Your task to perform on an android device: Go to Yahoo.com Image 0: 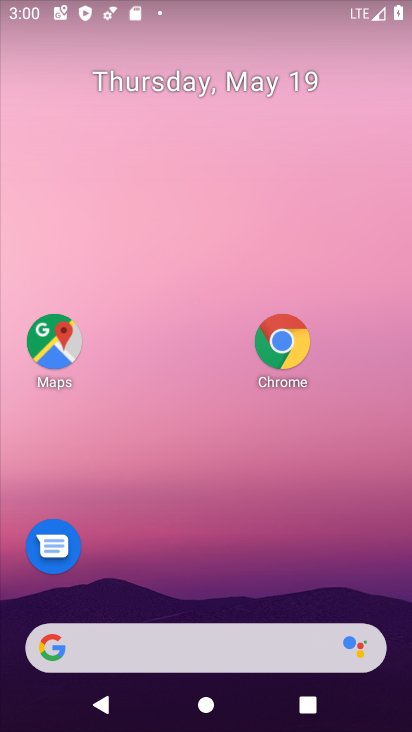
Step 0: press home button
Your task to perform on an android device: Go to Yahoo.com Image 1: 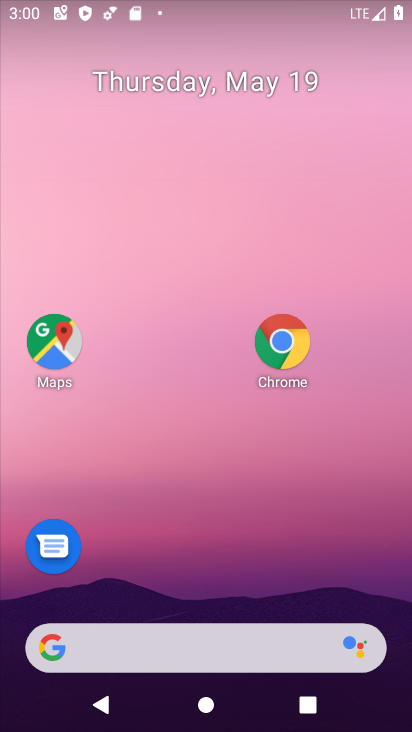
Step 1: click (292, 354)
Your task to perform on an android device: Go to Yahoo.com Image 2: 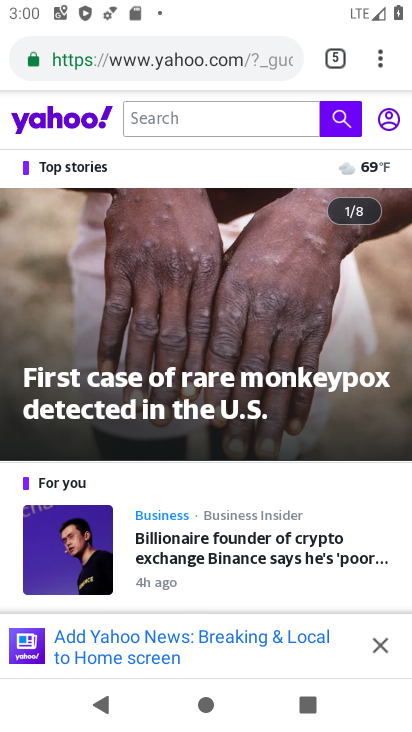
Step 2: task complete